Your task to perform on an android device: Open maps Image 0: 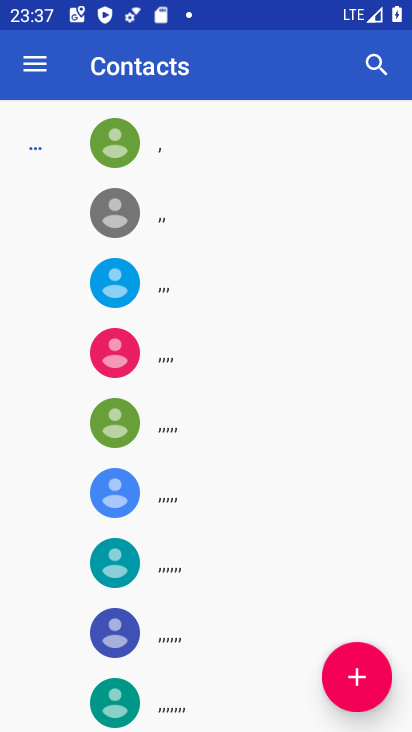
Step 0: press home button
Your task to perform on an android device: Open maps Image 1: 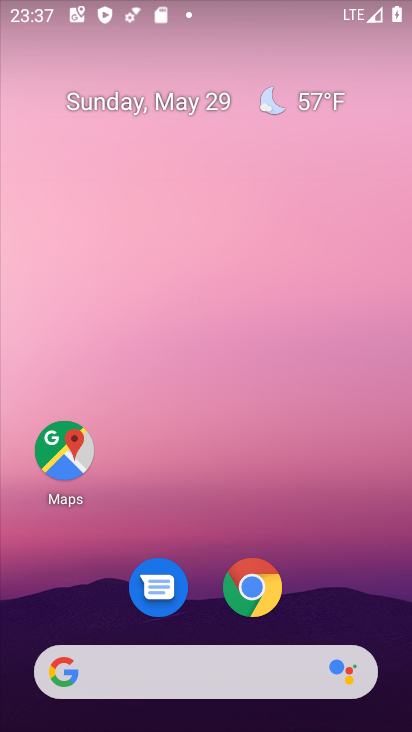
Step 1: click (66, 443)
Your task to perform on an android device: Open maps Image 2: 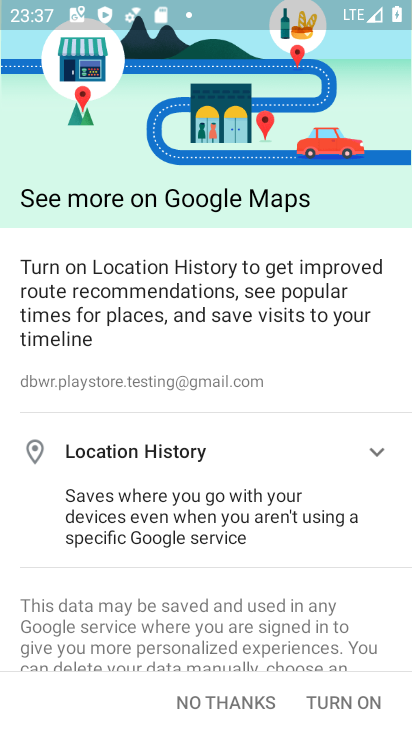
Step 2: click (265, 702)
Your task to perform on an android device: Open maps Image 3: 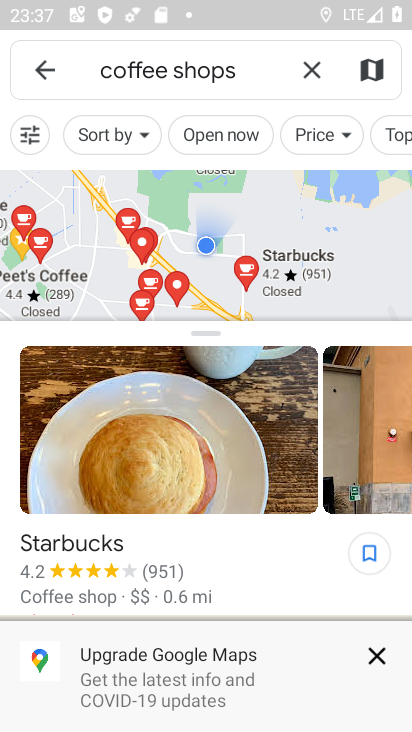
Step 3: task complete